Your task to perform on an android device: Is it going to rain tomorrow? Image 0: 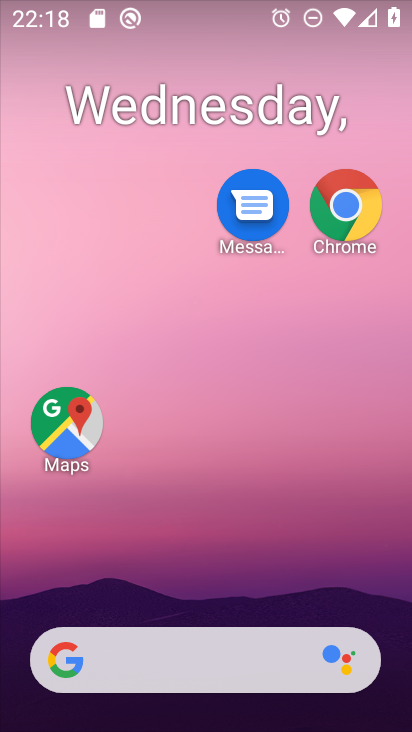
Step 0: drag from (212, 568) to (200, 228)
Your task to perform on an android device: Is it going to rain tomorrow? Image 1: 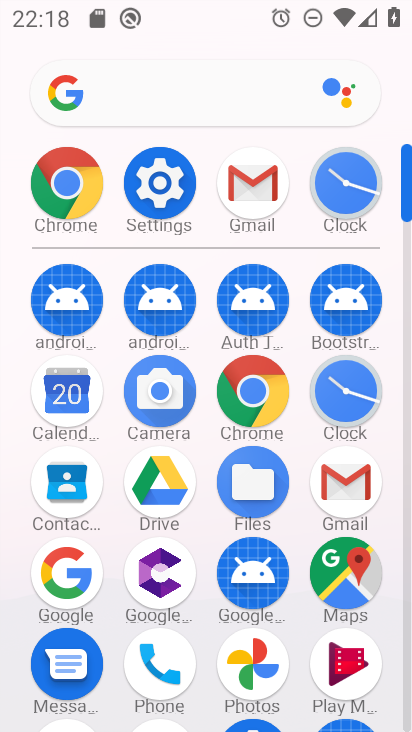
Step 1: click (243, 397)
Your task to perform on an android device: Is it going to rain tomorrow? Image 2: 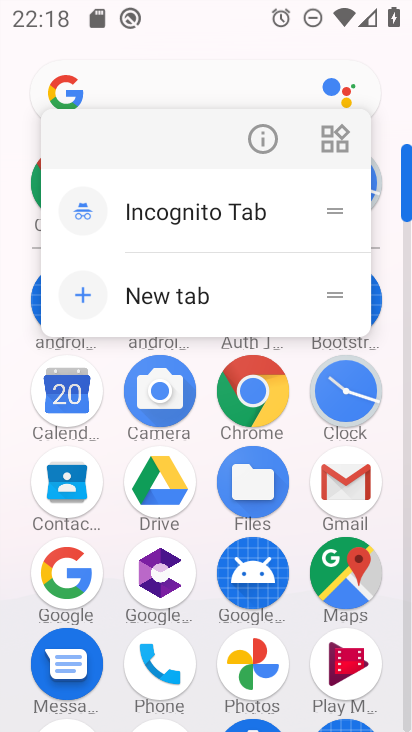
Step 2: click (264, 136)
Your task to perform on an android device: Is it going to rain tomorrow? Image 3: 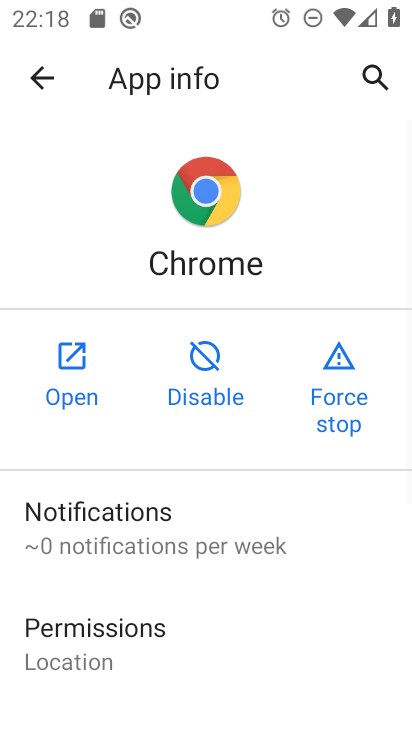
Step 3: click (83, 366)
Your task to perform on an android device: Is it going to rain tomorrow? Image 4: 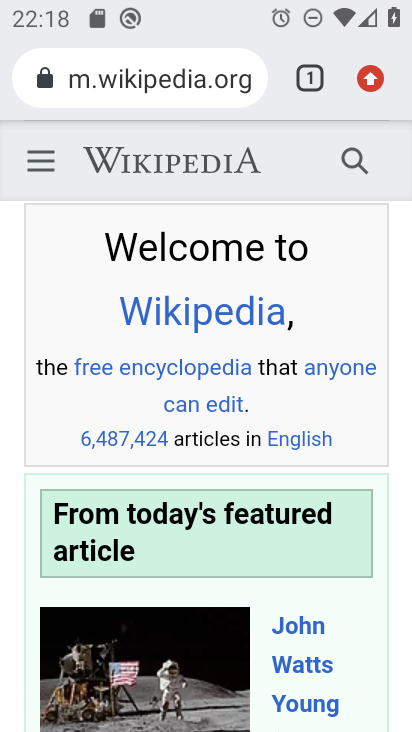
Step 4: click (95, 59)
Your task to perform on an android device: Is it going to rain tomorrow? Image 5: 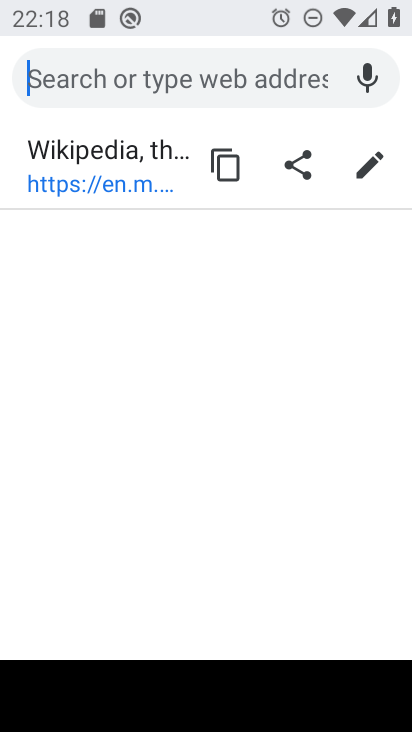
Step 5: type "rain tomorrow"
Your task to perform on an android device: Is it going to rain tomorrow? Image 6: 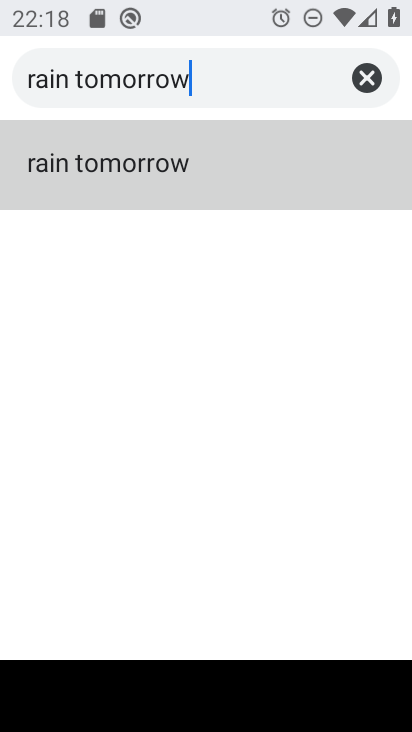
Step 6: click (110, 178)
Your task to perform on an android device: Is it going to rain tomorrow? Image 7: 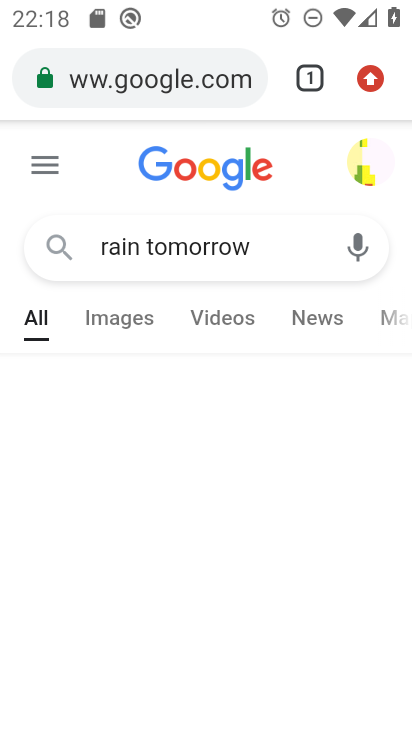
Step 7: task complete